Your task to perform on an android device: turn off sleep mode Image 0: 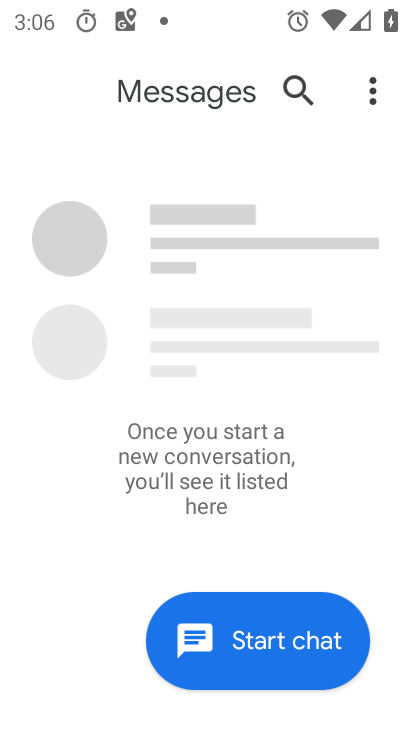
Step 0: press back button
Your task to perform on an android device: turn off sleep mode Image 1: 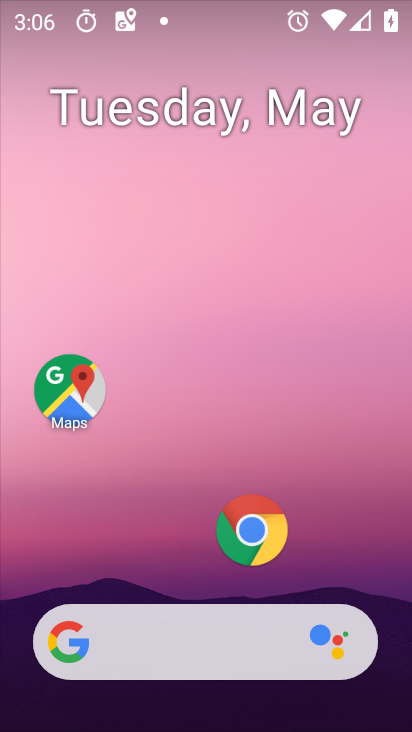
Step 1: drag from (254, 600) to (169, 3)
Your task to perform on an android device: turn off sleep mode Image 2: 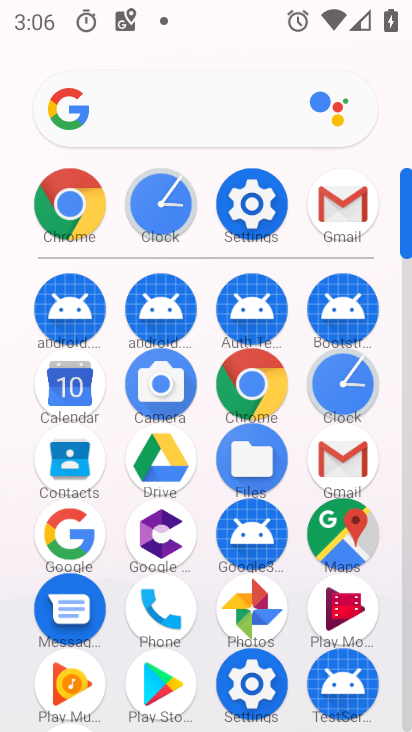
Step 2: click (237, 217)
Your task to perform on an android device: turn off sleep mode Image 3: 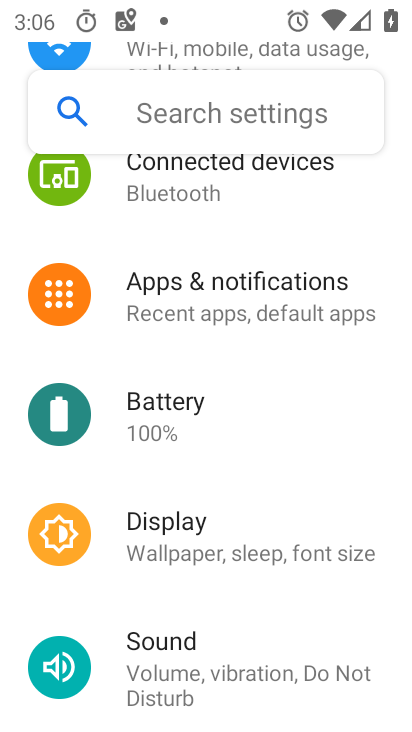
Step 3: drag from (239, 503) to (170, 35)
Your task to perform on an android device: turn off sleep mode Image 4: 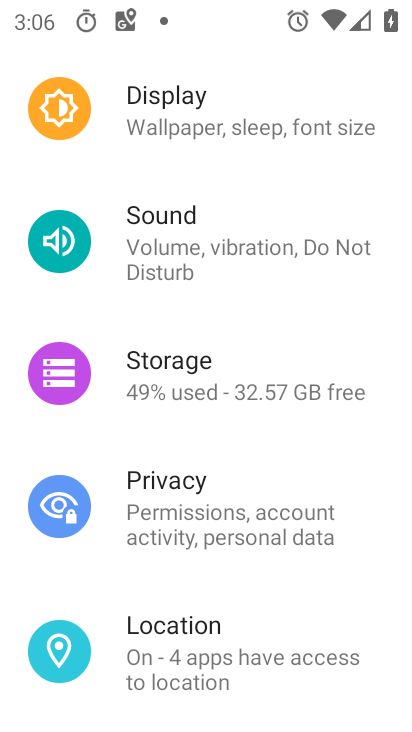
Step 4: click (175, 121)
Your task to perform on an android device: turn off sleep mode Image 5: 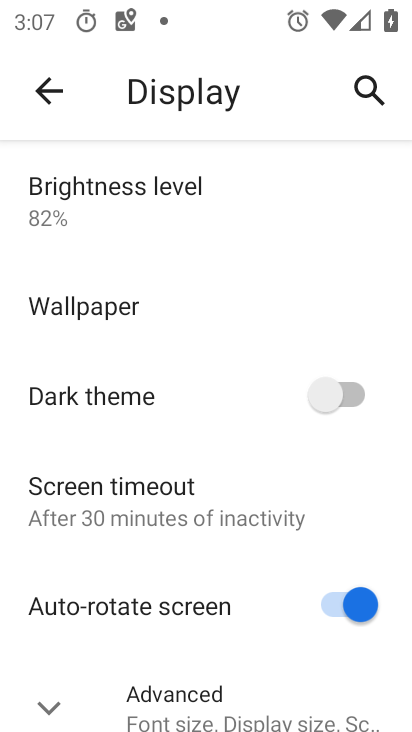
Step 5: task complete